Your task to perform on an android device: toggle javascript in the chrome app Image 0: 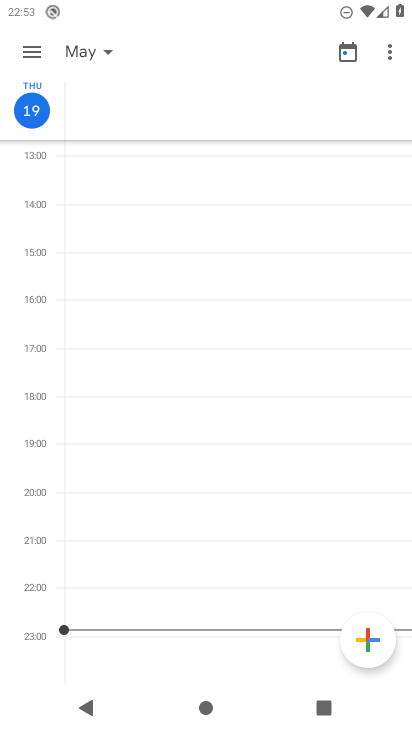
Step 0: press home button
Your task to perform on an android device: toggle javascript in the chrome app Image 1: 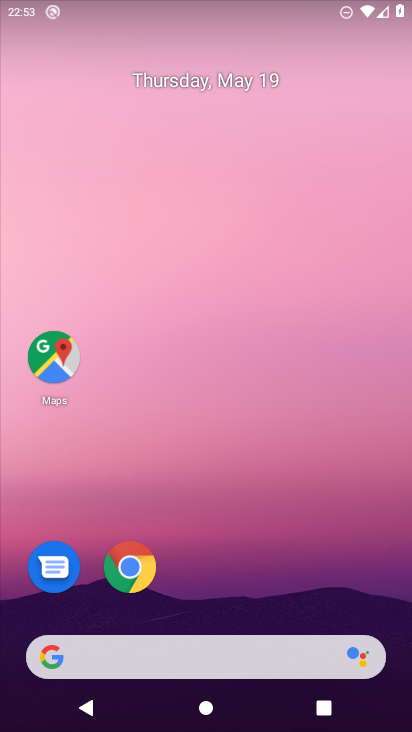
Step 1: click (128, 558)
Your task to perform on an android device: toggle javascript in the chrome app Image 2: 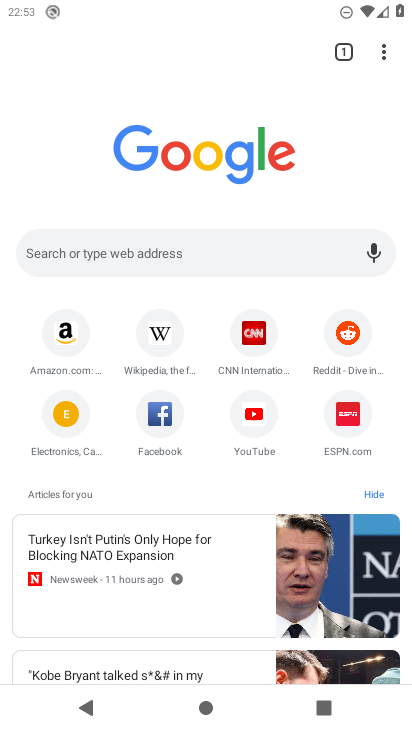
Step 2: click (384, 46)
Your task to perform on an android device: toggle javascript in the chrome app Image 3: 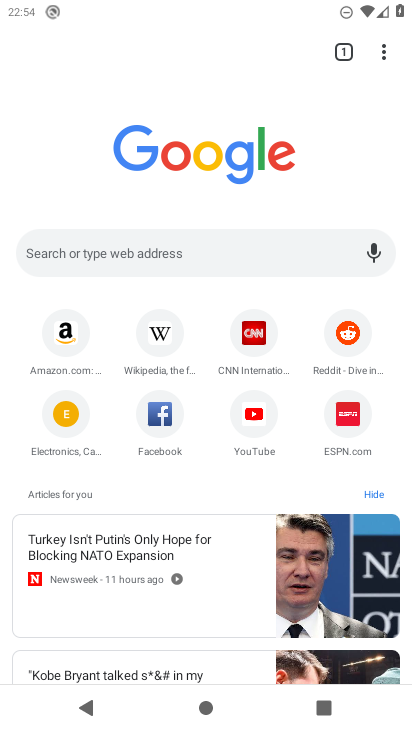
Step 3: click (384, 51)
Your task to perform on an android device: toggle javascript in the chrome app Image 4: 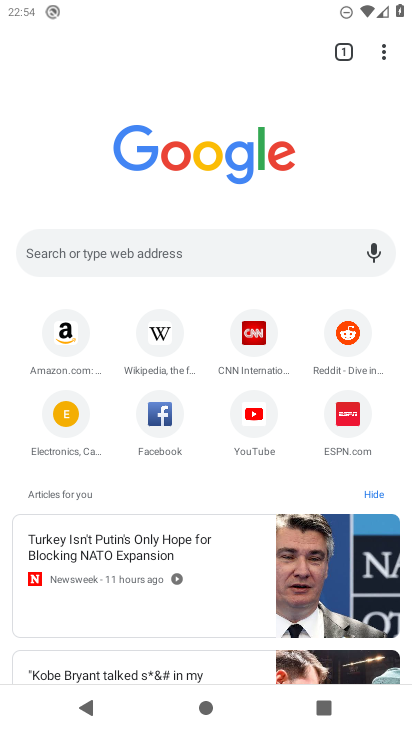
Step 4: click (382, 48)
Your task to perform on an android device: toggle javascript in the chrome app Image 5: 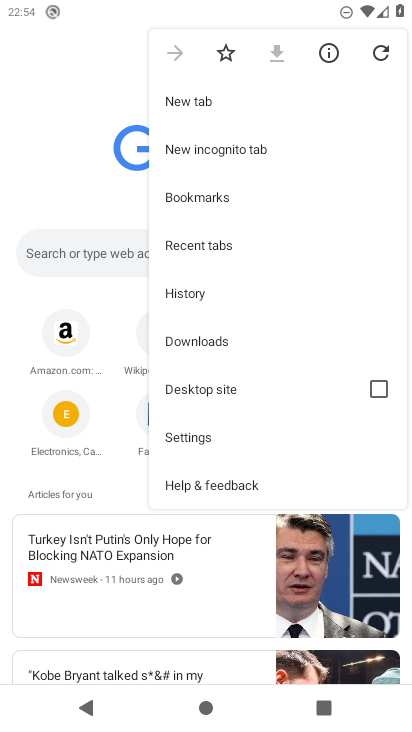
Step 5: click (215, 434)
Your task to perform on an android device: toggle javascript in the chrome app Image 6: 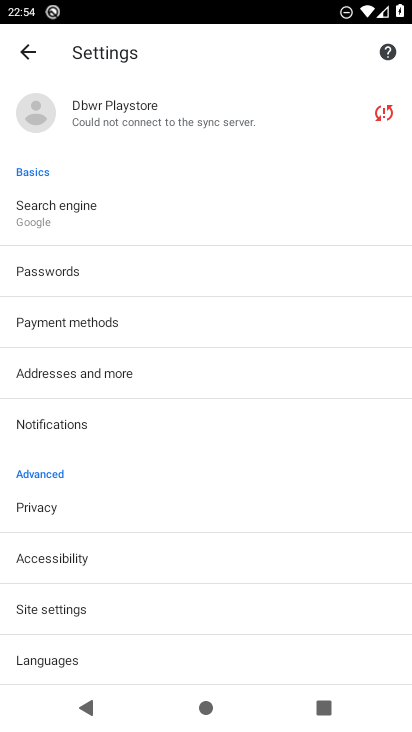
Step 6: drag from (194, 628) to (183, 137)
Your task to perform on an android device: toggle javascript in the chrome app Image 7: 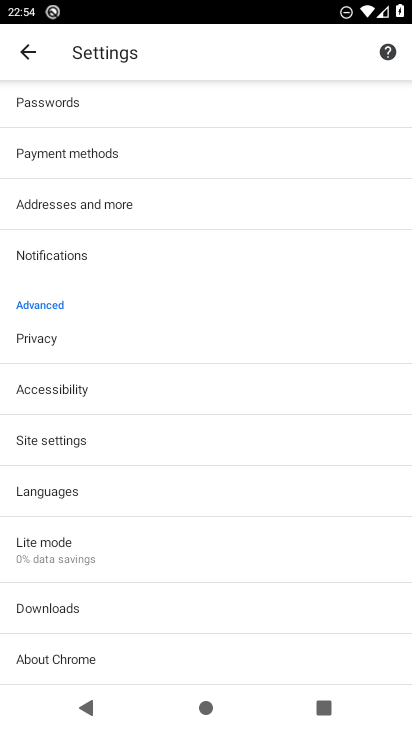
Step 7: click (105, 439)
Your task to perform on an android device: toggle javascript in the chrome app Image 8: 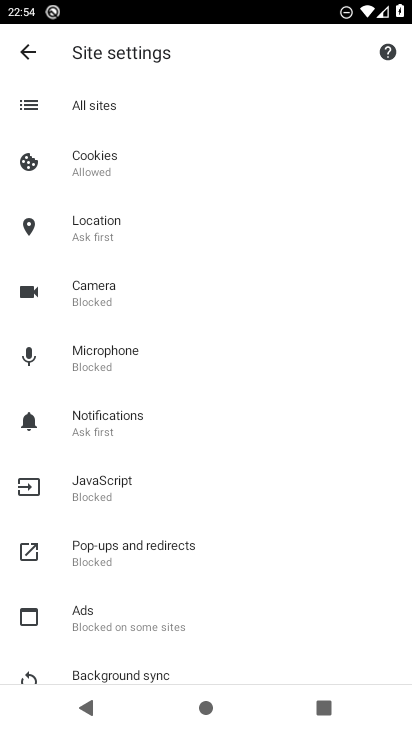
Step 8: click (136, 479)
Your task to perform on an android device: toggle javascript in the chrome app Image 9: 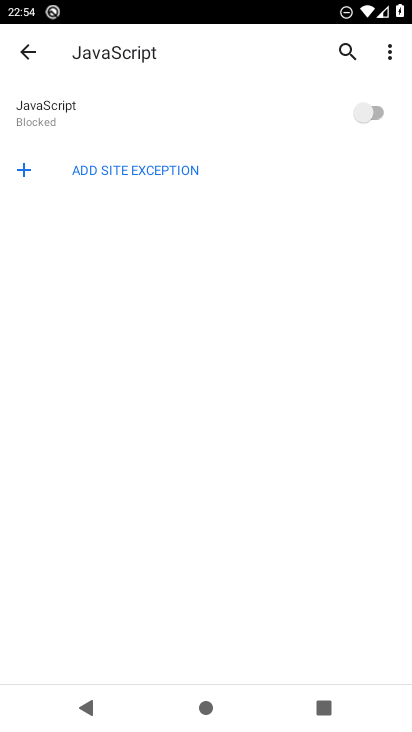
Step 9: click (373, 113)
Your task to perform on an android device: toggle javascript in the chrome app Image 10: 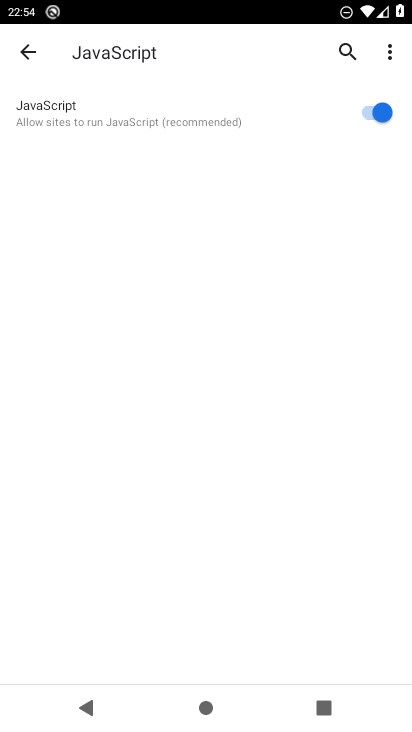
Step 10: task complete